Your task to perform on an android device: check data usage Image 0: 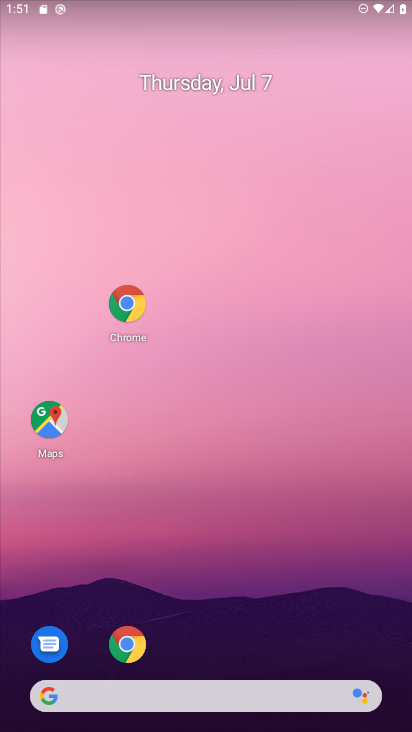
Step 0: drag from (277, 603) to (256, 160)
Your task to perform on an android device: check data usage Image 1: 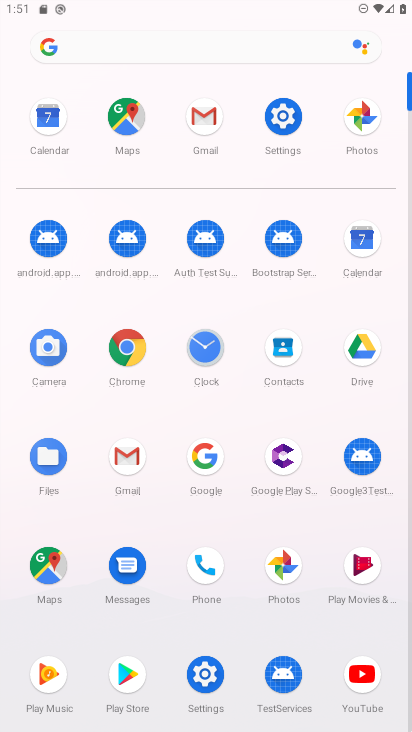
Step 1: click (283, 134)
Your task to perform on an android device: check data usage Image 2: 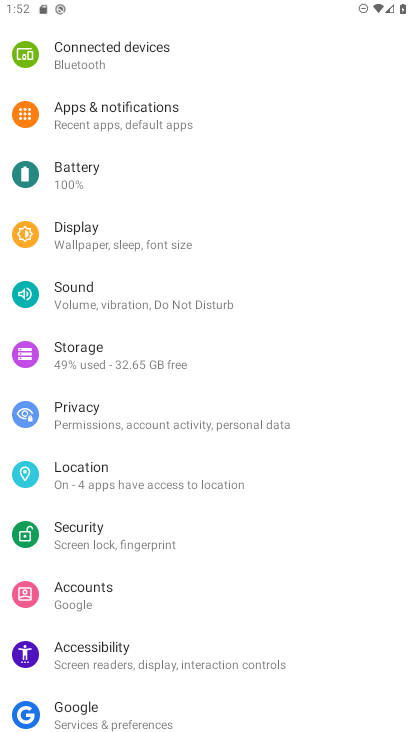
Step 2: drag from (174, 259) to (219, 518)
Your task to perform on an android device: check data usage Image 3: 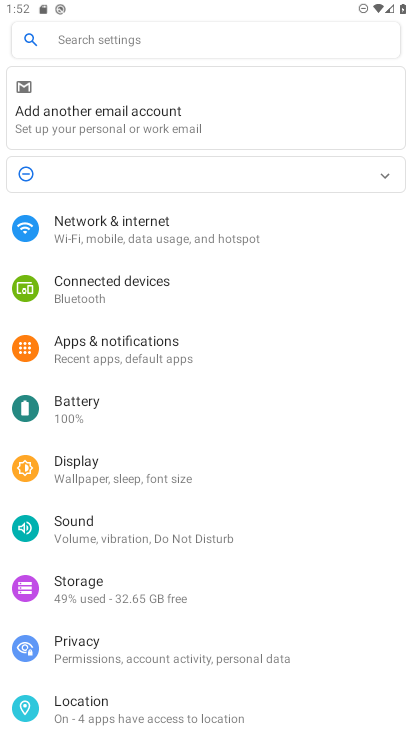
Step 3: drag from (184, 446) to (174, 177)
Your task to perform on an android device: check data usage Image 4: 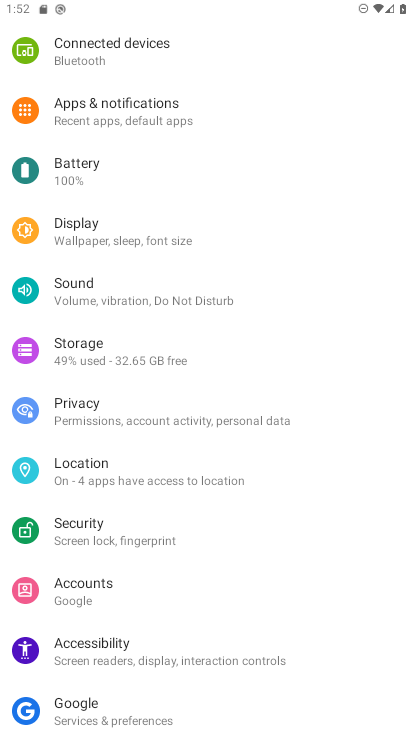
Step 4: drag from (145, 498) to (124, 225)
Your task to perform on an android device: check data usage Image 5: 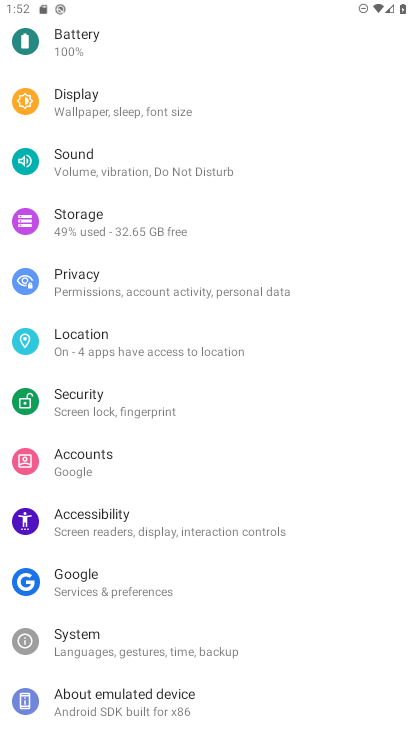
Step 5: drag from (283, 334) to (301, 566)
Your task to perform on an android device: check data usage Image 6: 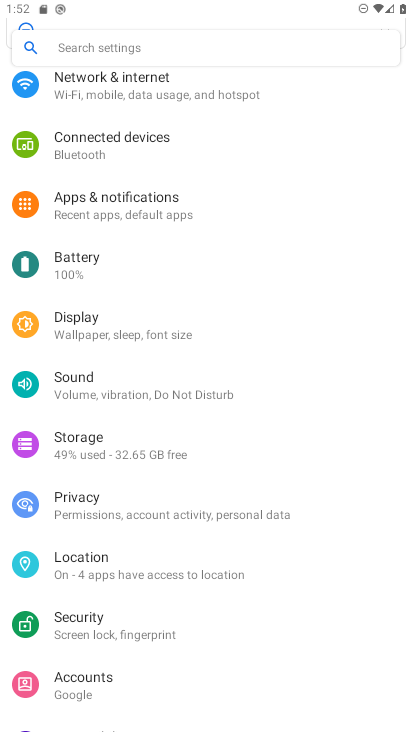
Step 6: drag from (246, 252) to (257, 511)
Your task to perform on an android device: check data usage Image 7: 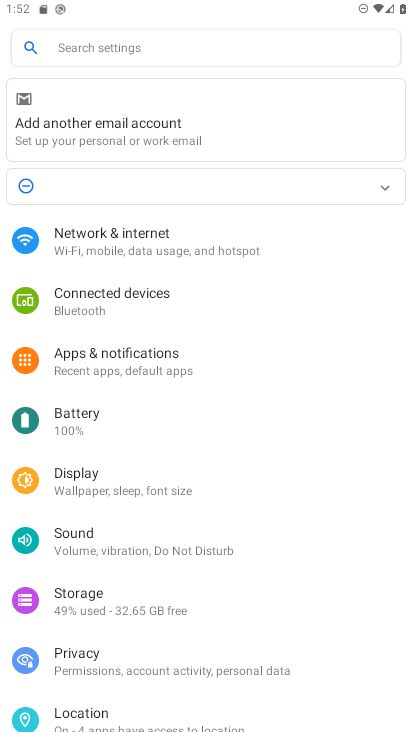
Step 7: click (183, 263)
Your task to perform on an android device: check data usage Image 8: 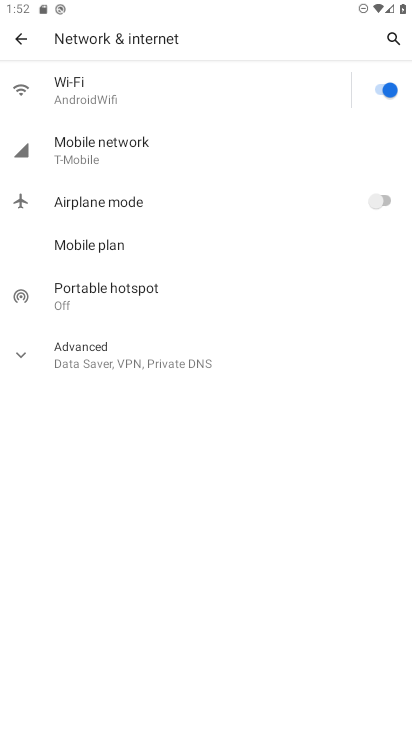
Step 8: click (148, 160)
Your task to perform on an android device: check data usage Image 9: 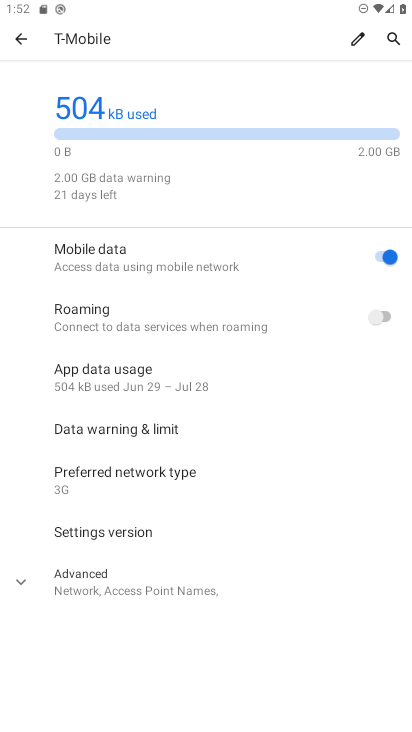
Step 9: click (151, 378)
Your task to perform on an android device: check data usage Image 10: 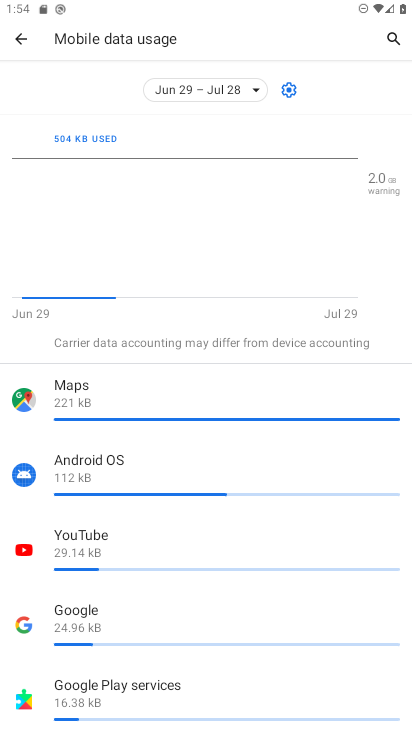
Step 10: task complete